Your task to perform on an android device: Show me productivity apps on the Play Store Image 0: 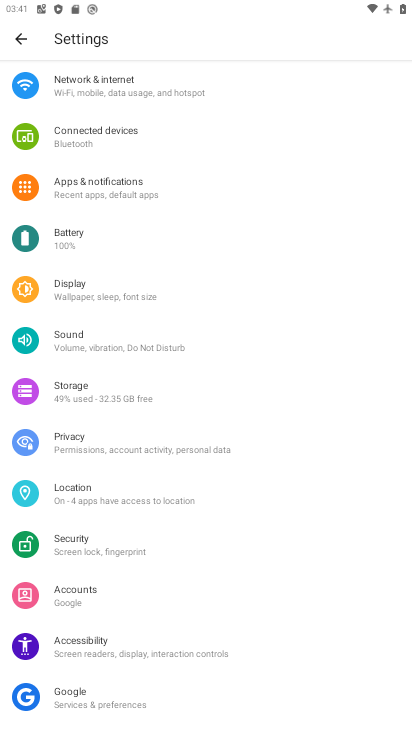
Step 0: press home button
Your task to perform on an android device: Show me productivity apps on the Play Store Image 1: 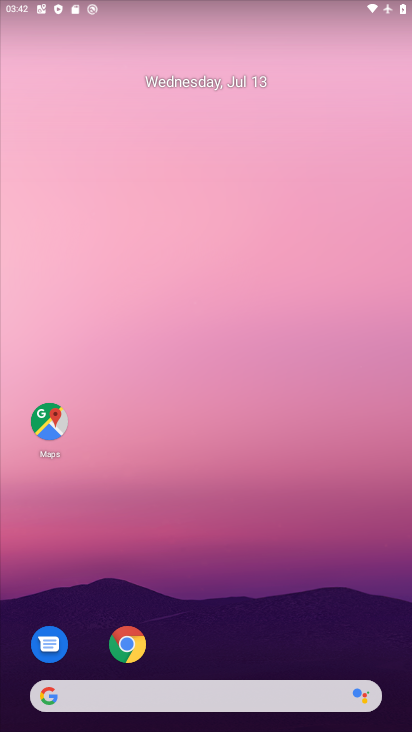
Step 1: drag from (299, 643) to (262, 156)
Your task to perform on an android device: Show me productivity apps on the Play Store Image 2: 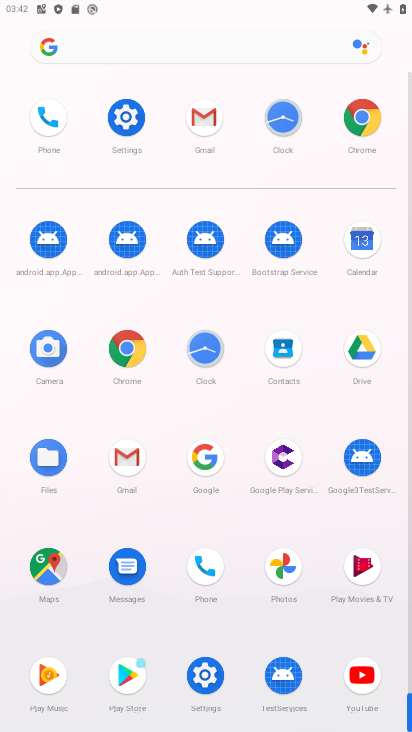
Step 2: drag from (240, 592) to (258, 343)
Your task to perform on an android device: Show me productivity apps on the Play Store Image 3: 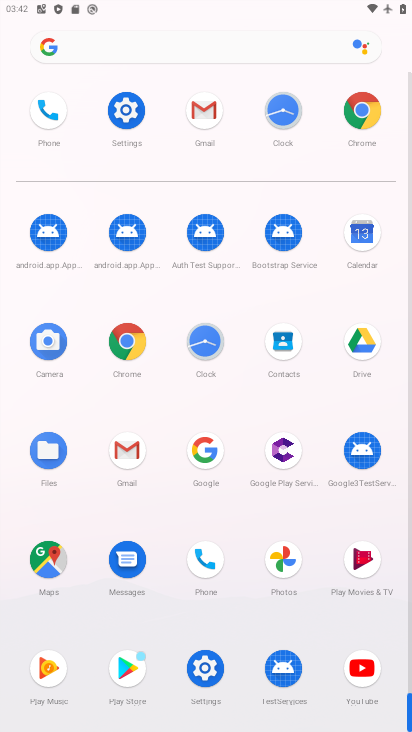
Step 3: click (137, 664)
Your task to perform on an android device: Show me productivity apps on the Play Store Image 4: 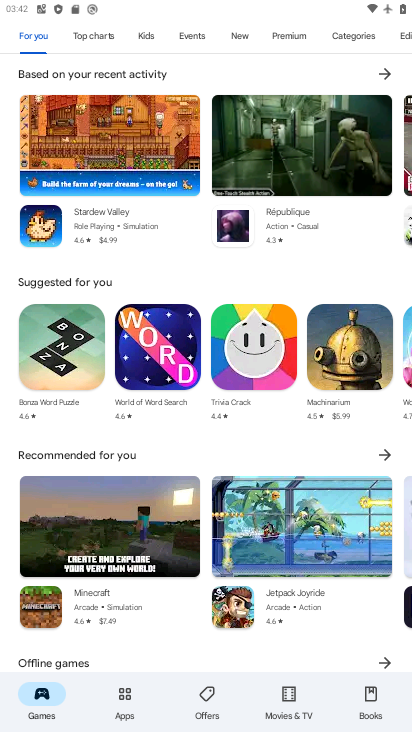
Step 4: drag from (222, 443) to (235, 159)
Your task to perform on an android device: Show me productivity apps on the Play Store Image 5: 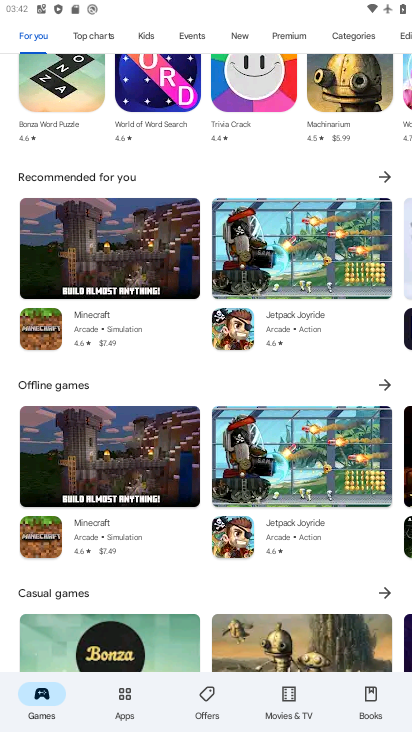
Step 5: click (136, 692)
Your task to perform on an android device: Show me productivity apps on the Play Store Image 6: 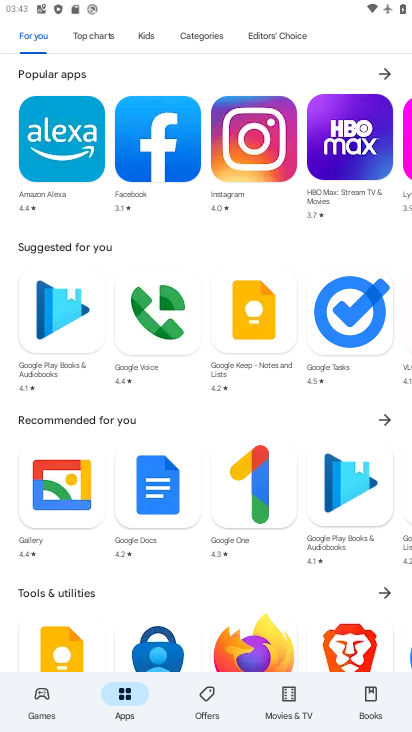
Step 6: task complete